Your task to perform on an android device: Is it going to rain today? Image 0: 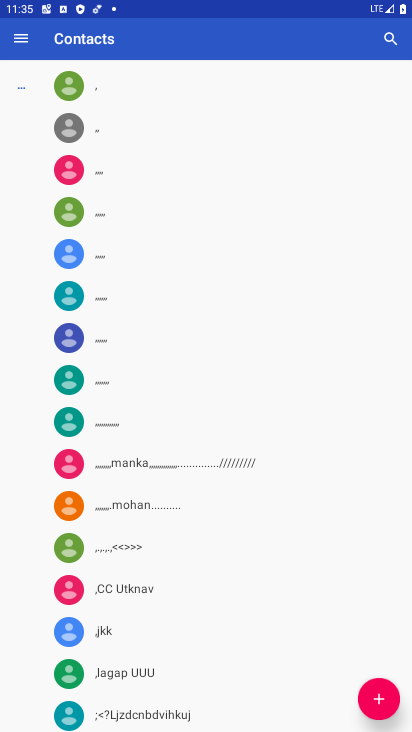
Step 0: press home button
Your task to perform on an android device: Is it going to rain today? Image 1: 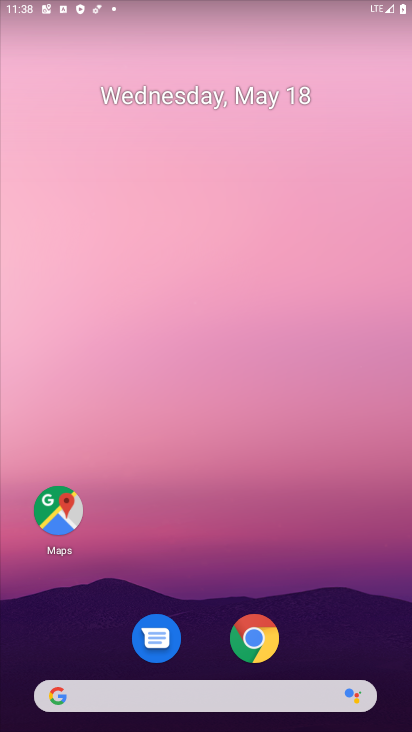
Step 1: drag from (319, 649) to (288, 93)
Your task to perform on an android device: Is it going to rain today? Image 2: 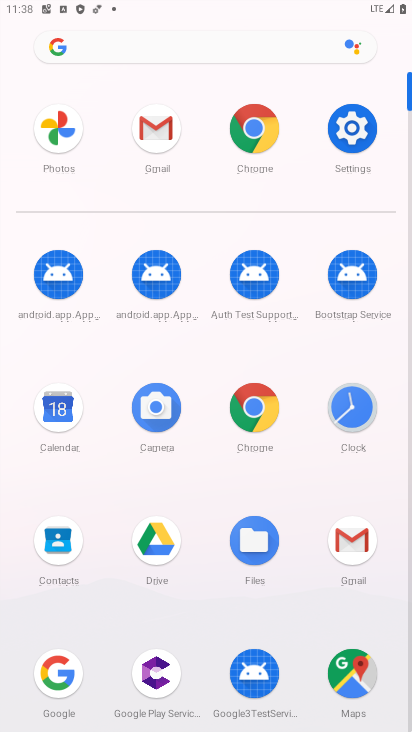
Step 2: click (55, 666)
Your task to perform on an android device: Is it going to rain today? Image 3: 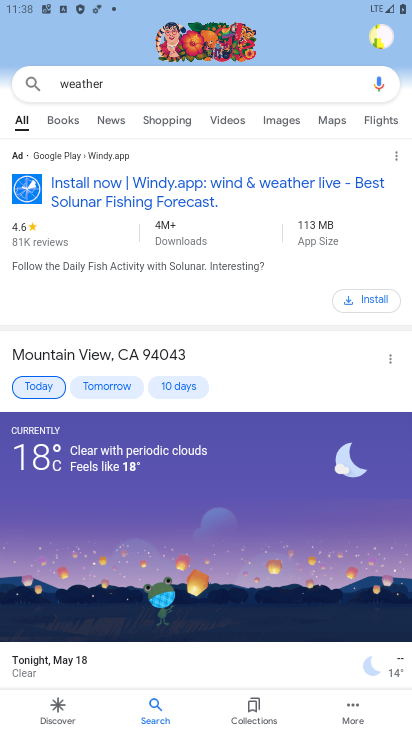
Step 3: press back button
Your task to perform on an android device: Is it going to rain today? Image 4: 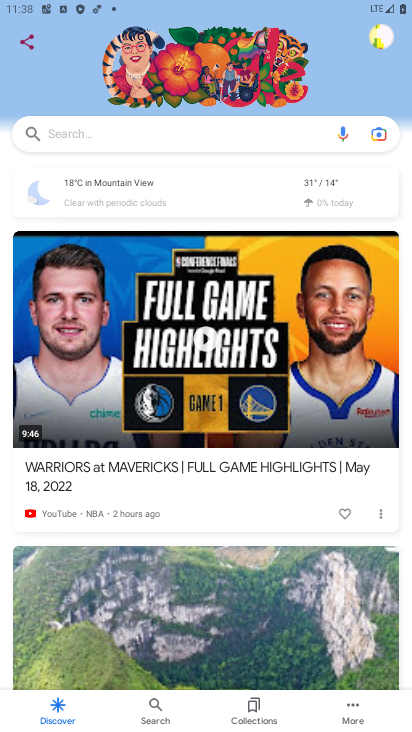
Step 4: click (175, 140)
Your task to perform on an android device: Is it going to rain today? Image 5: 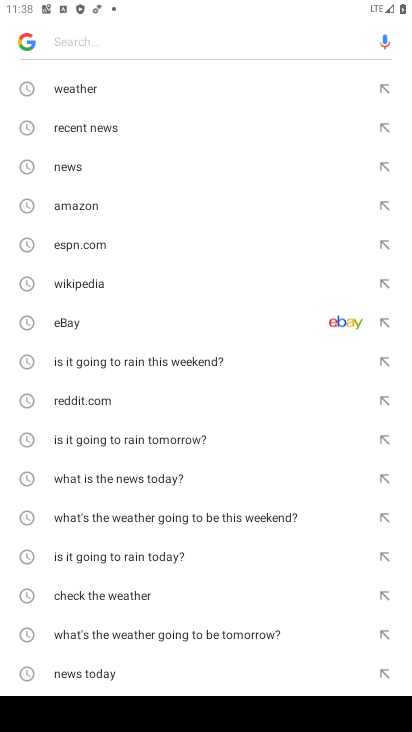
Step 5: click (155, 564)
Your task to perform on an android device: Is it going to rain today? Image 6: 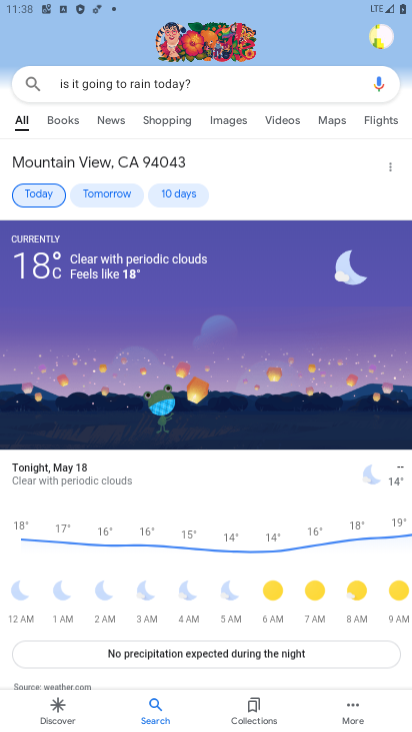
Step 6: task complete